Your task to perform on an android device: Open network settings Image 0: 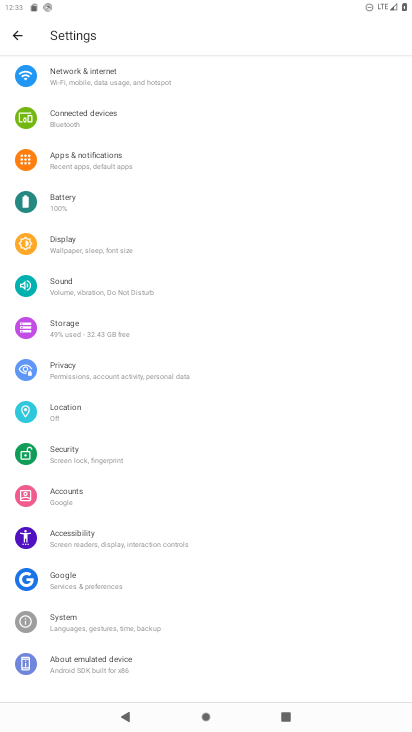
Step 0: press home button
Your task to perform on an android device: Open network settings Image 1: 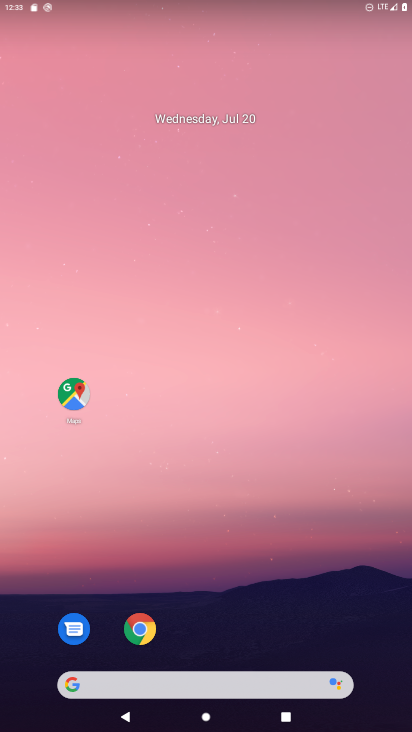
Step 1: drag from (185, 627) to (214, 143)
Your task to perform on an android device: Open network settings Image 2: 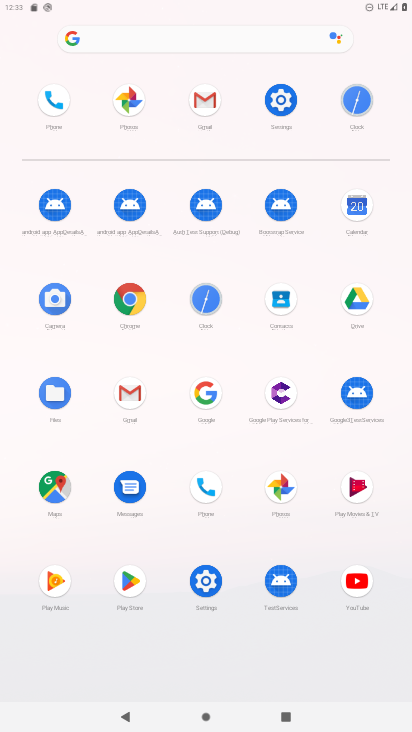
Step 2: click (195, 588)
Your task to perform on an android device: Open network settings Image 3: 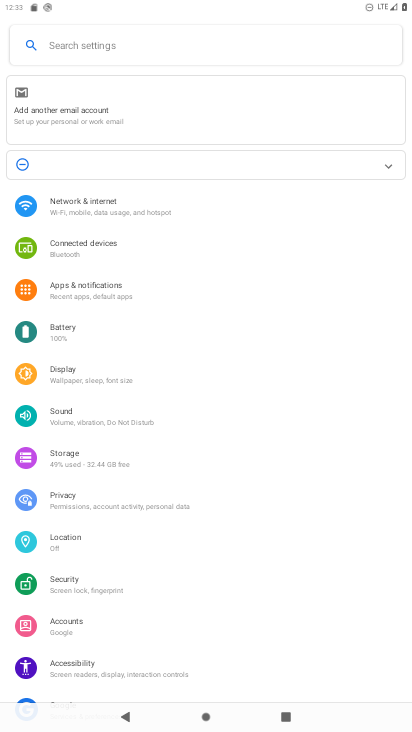
Step 3: click (88, 209)
Your task to perform on an android device: Open network settings Image 4: 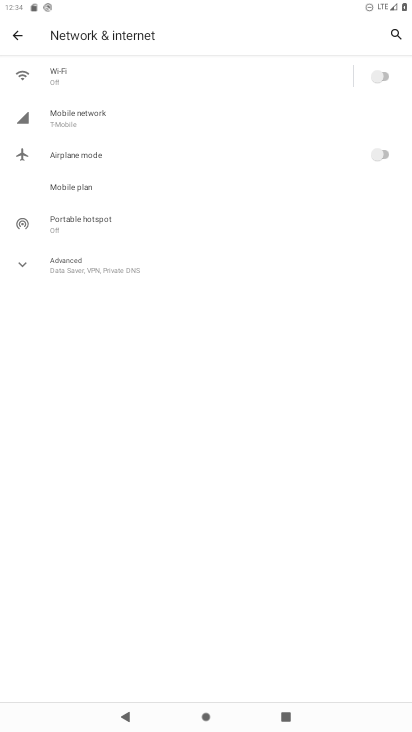
Step 4: task complete